Your task to perform on an android device: When is my next meeting? Image 0: 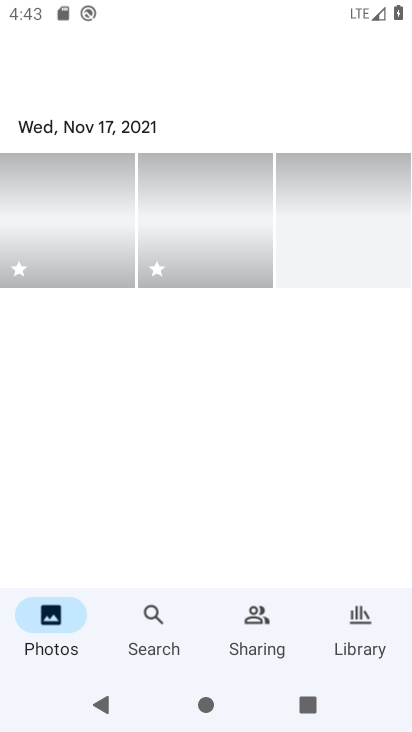
Step 0: drag from (236, 553) to (397, 375)
Your task to perform on an android device: When is my next meeting? Image 1: 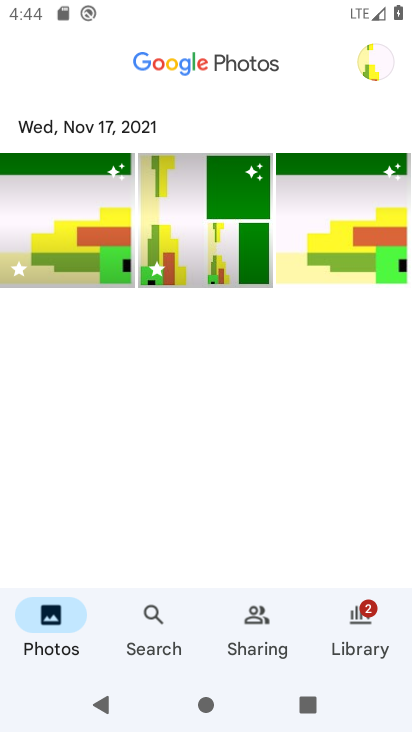
Step 1: press home button
Your task to perform on an android device: When is my next meeting? Image 2: 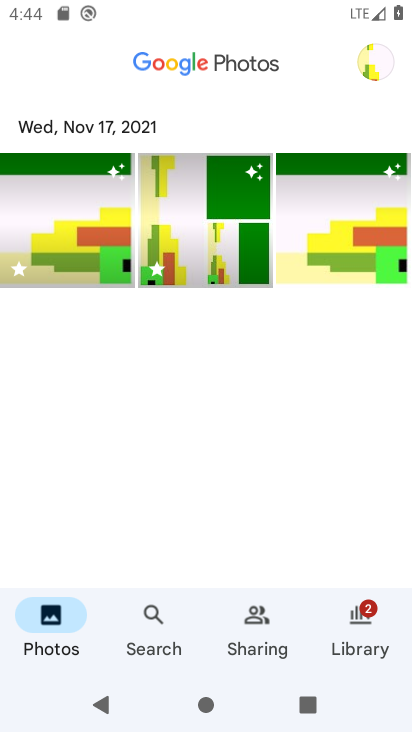
Step 2: drag from (397, 375) to (363, 606)
Your task to perform on an android device: When is my next meeting? Image 3: 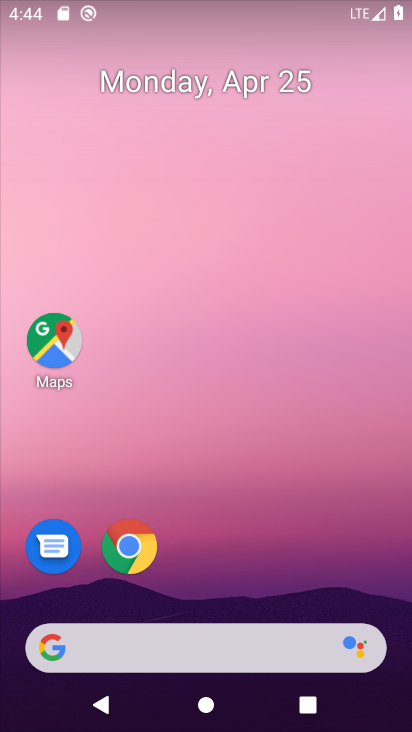
Step 3: drag from (320, 598) to (351, 50)
Your task to perform on an android device: When is my next meeting? Image 4: 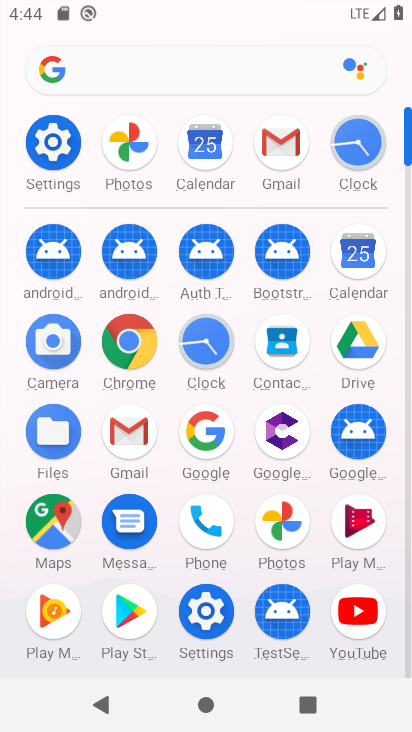
Step 4: click (370, 263)
Your task to perform on an android device: When is my next meeting? Image 5: 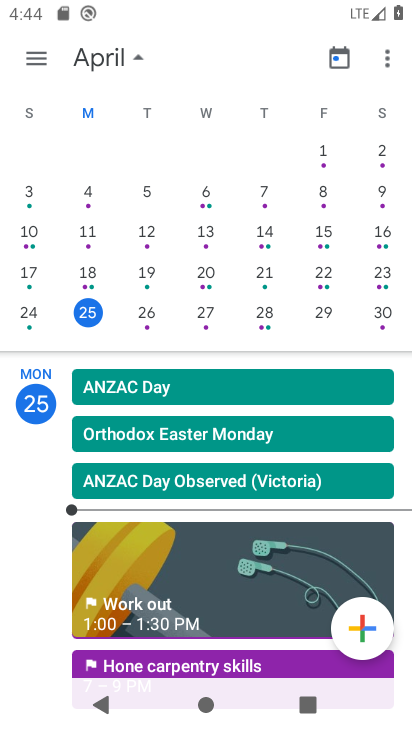
Step 5: task complete